Your task to perform on an android device: open app "Nova Launcher" (install if not already installed), go to login, and select forgot password Image 0: 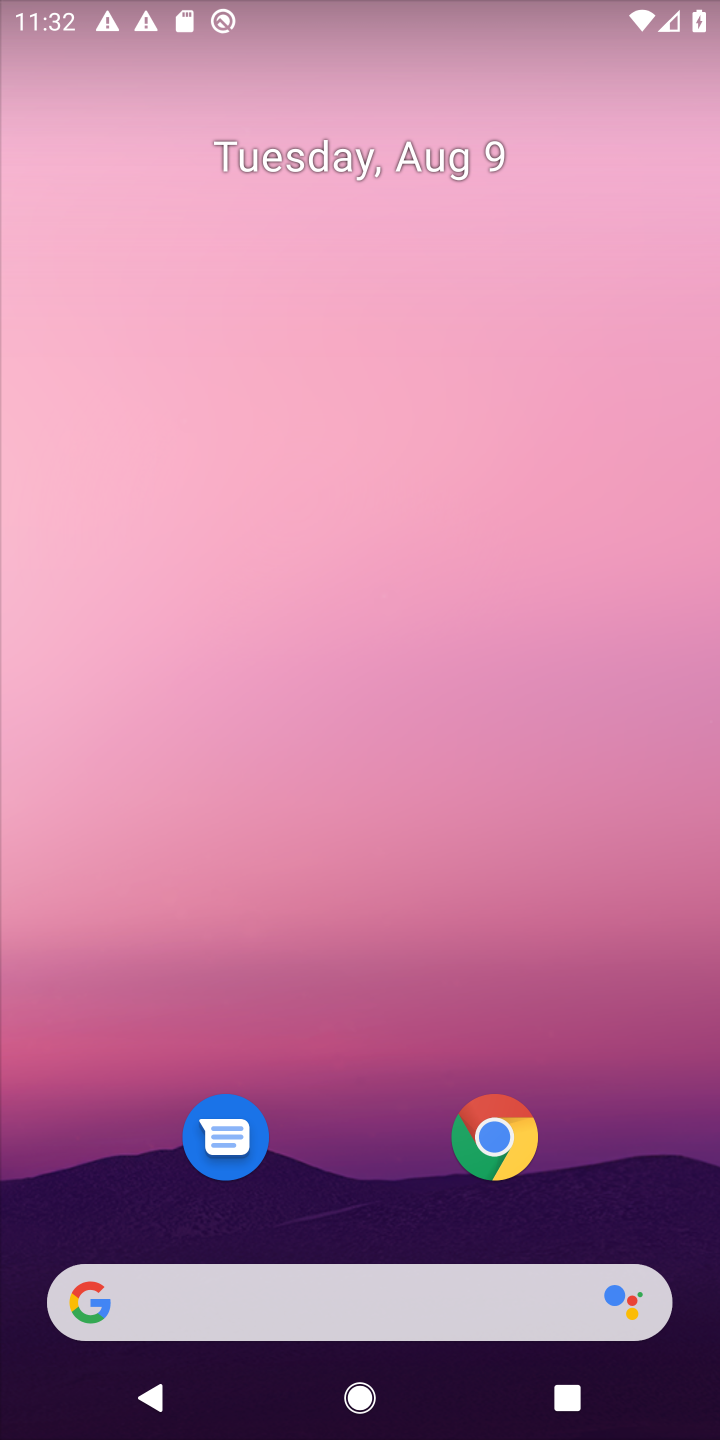
Step 0: press home button
Your task to perform on an android device: open app "Nova Launcher" (install if not already installed), go to login, and select forgot password Image 1: 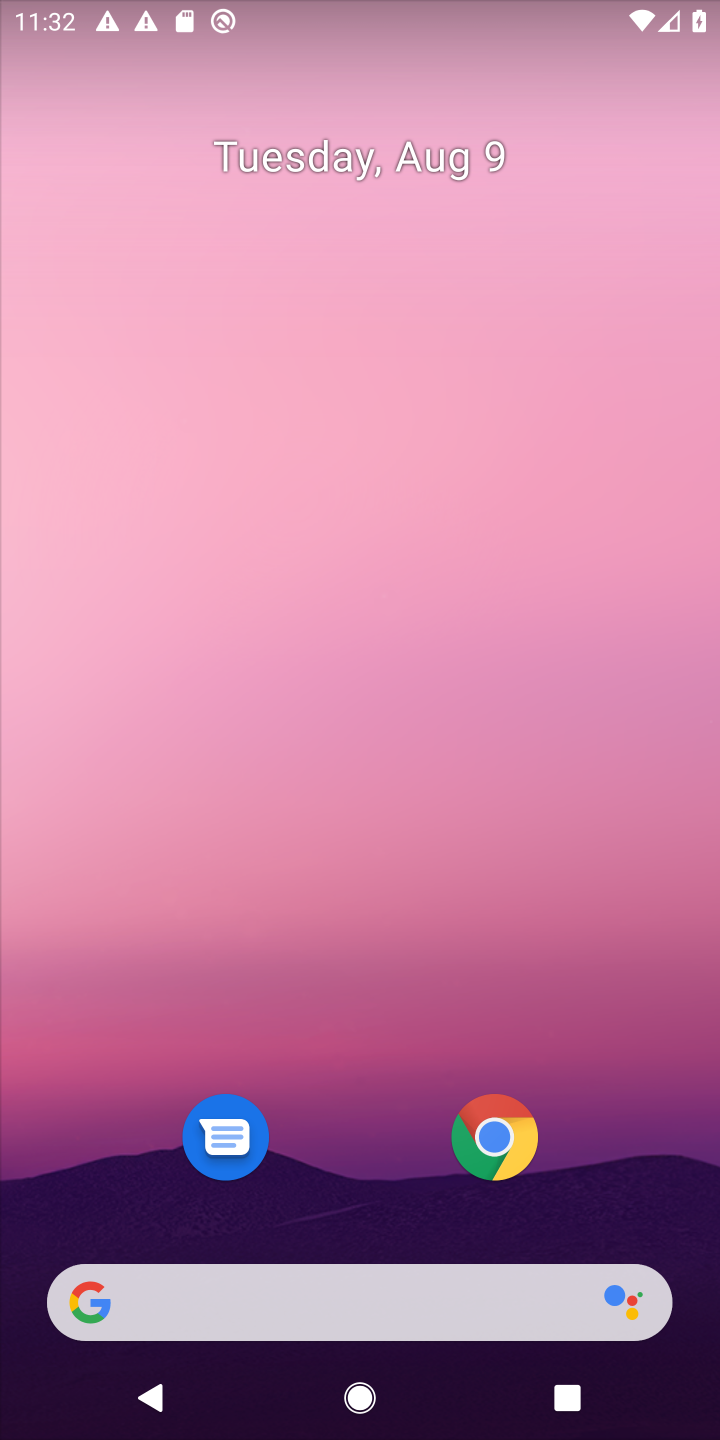
Step 1: drag from (385, 1215) to (423, 33)
Your task to perform on an android device: open app "Nova Launcher" (install if not already installed), go to login, and select forgot password Image 2: 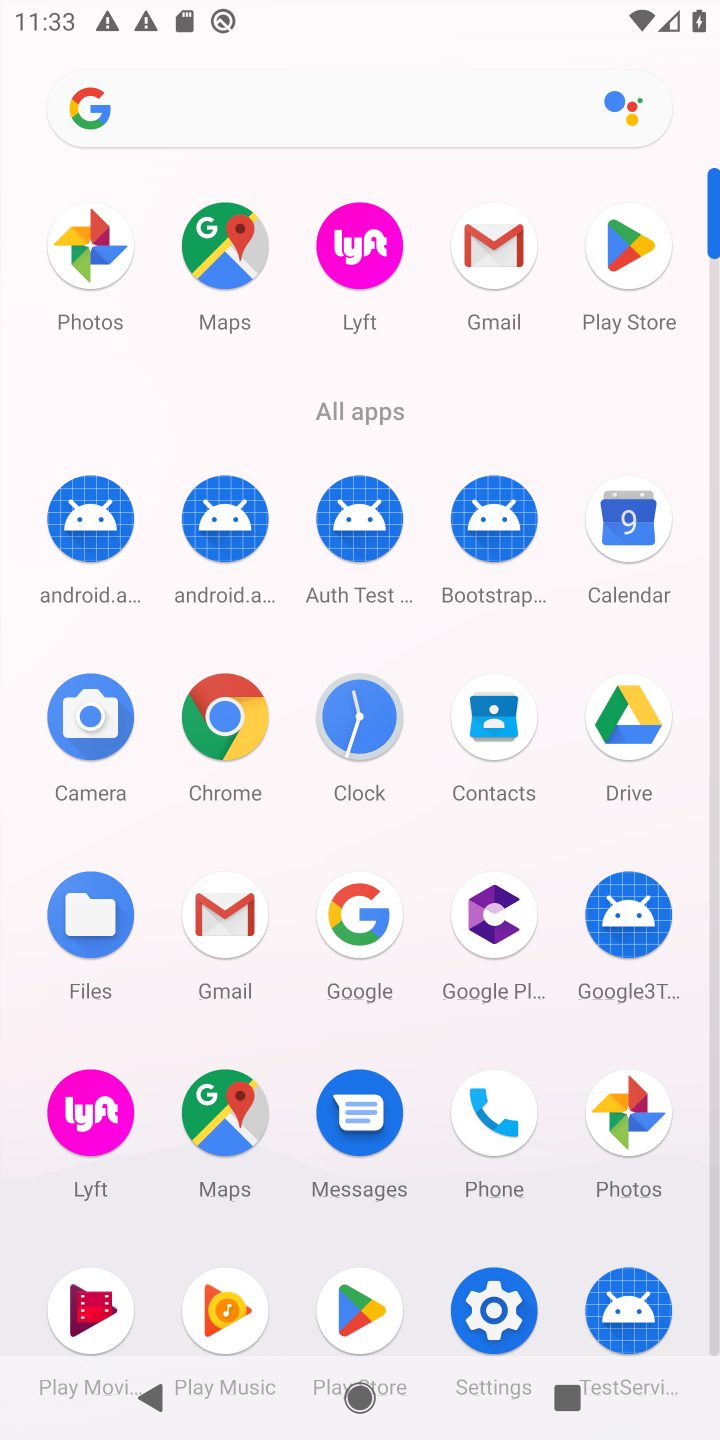
Step 2: click (628, 238)
Your task to perform on an android device: open app "Nova Launcher" (install if not already installed), go to login, and select forgot password Image 3: 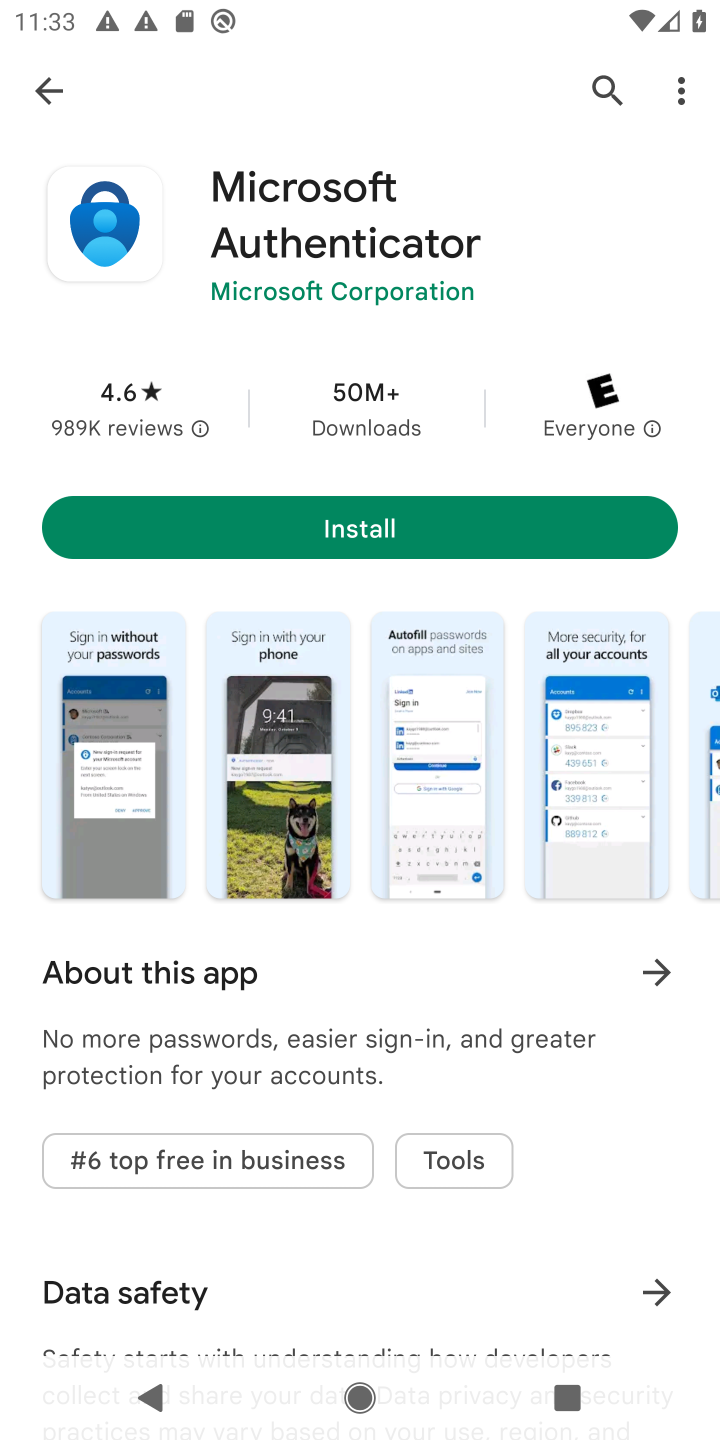
Step 3: click (603, 87)
Your task to perform on an android device: open app "Nova Launcher" (install if not already installed), go to login, and select forgot password Image 4: 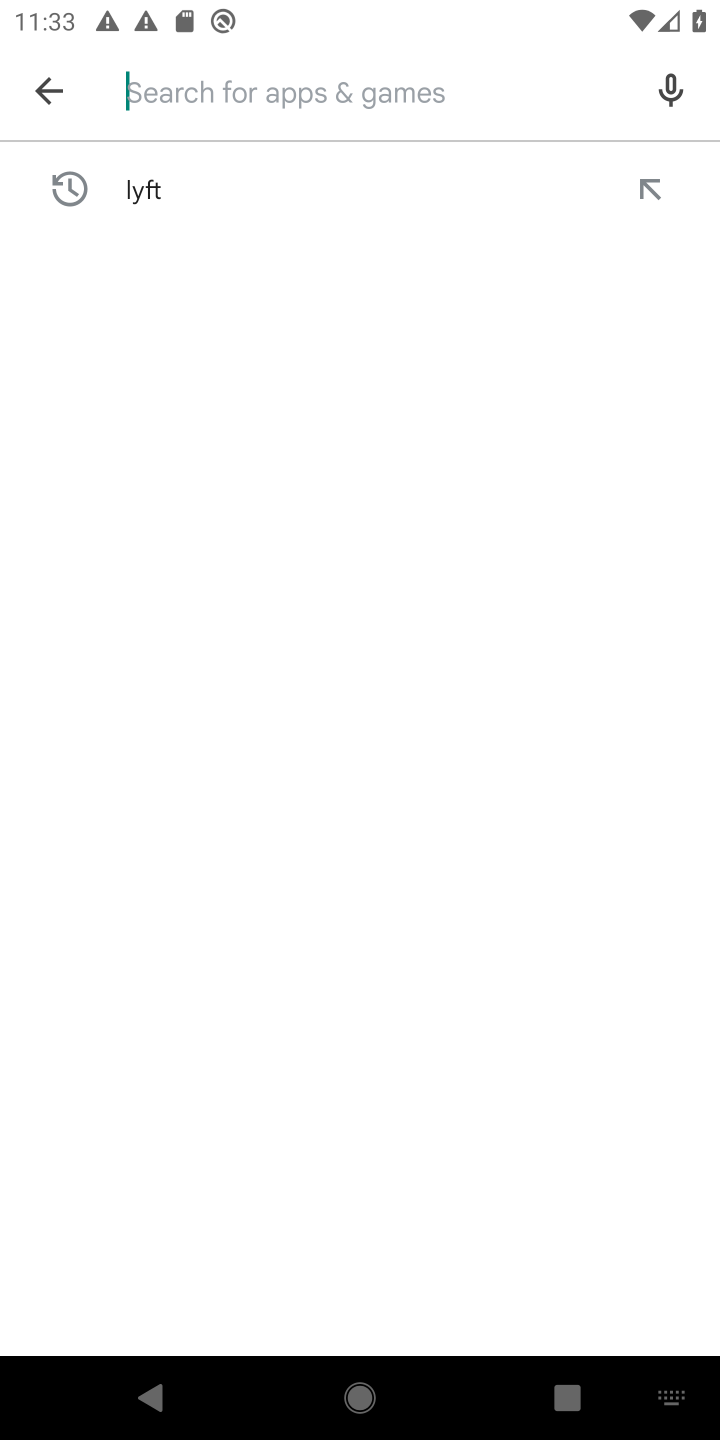
Step 4: type "Nova Launcher"
Your task to perform on an android device: open app "Nova Launcher" (install if not already installed), go to login, and select forgot password Image 5: 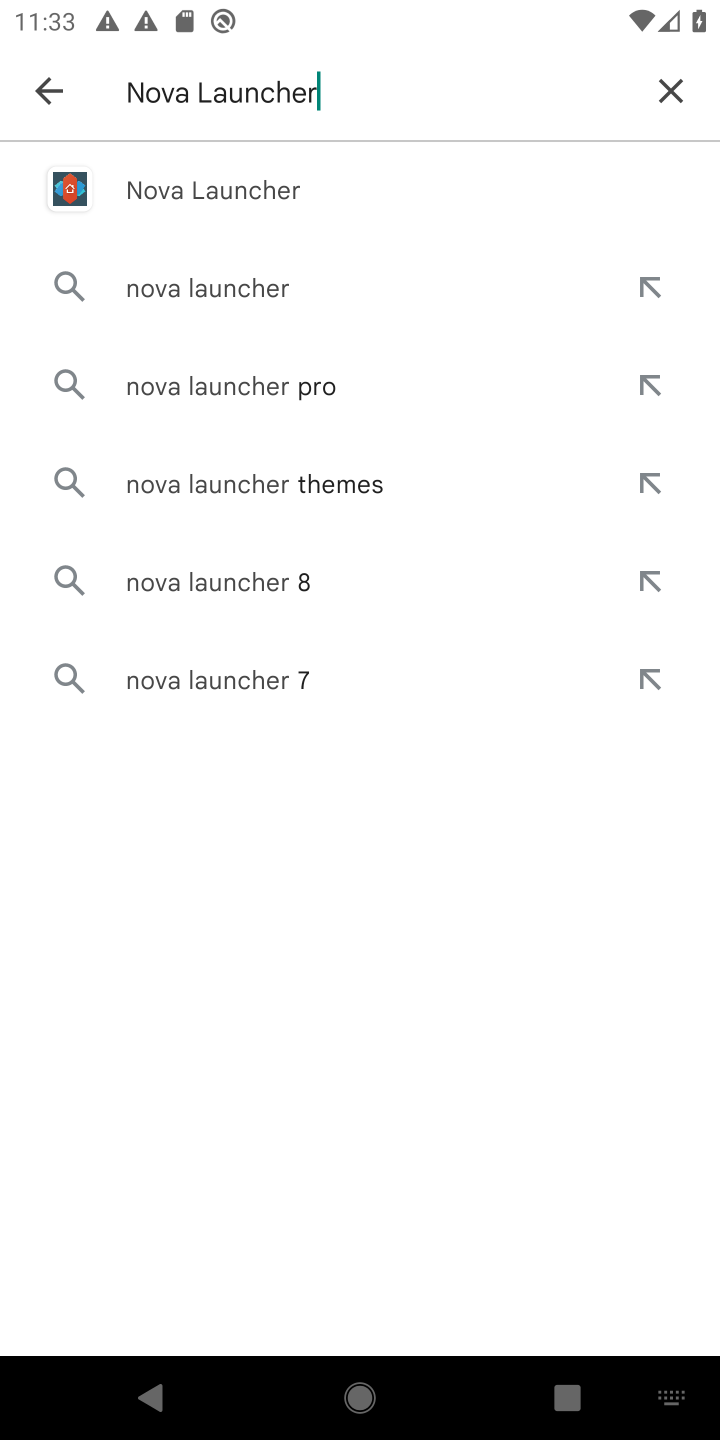
Step 5: click (274, 196)
Your task to perform on an android device: open app "Nova Launcher" (install if not already installed), go to login, and select forgot password Image 6: 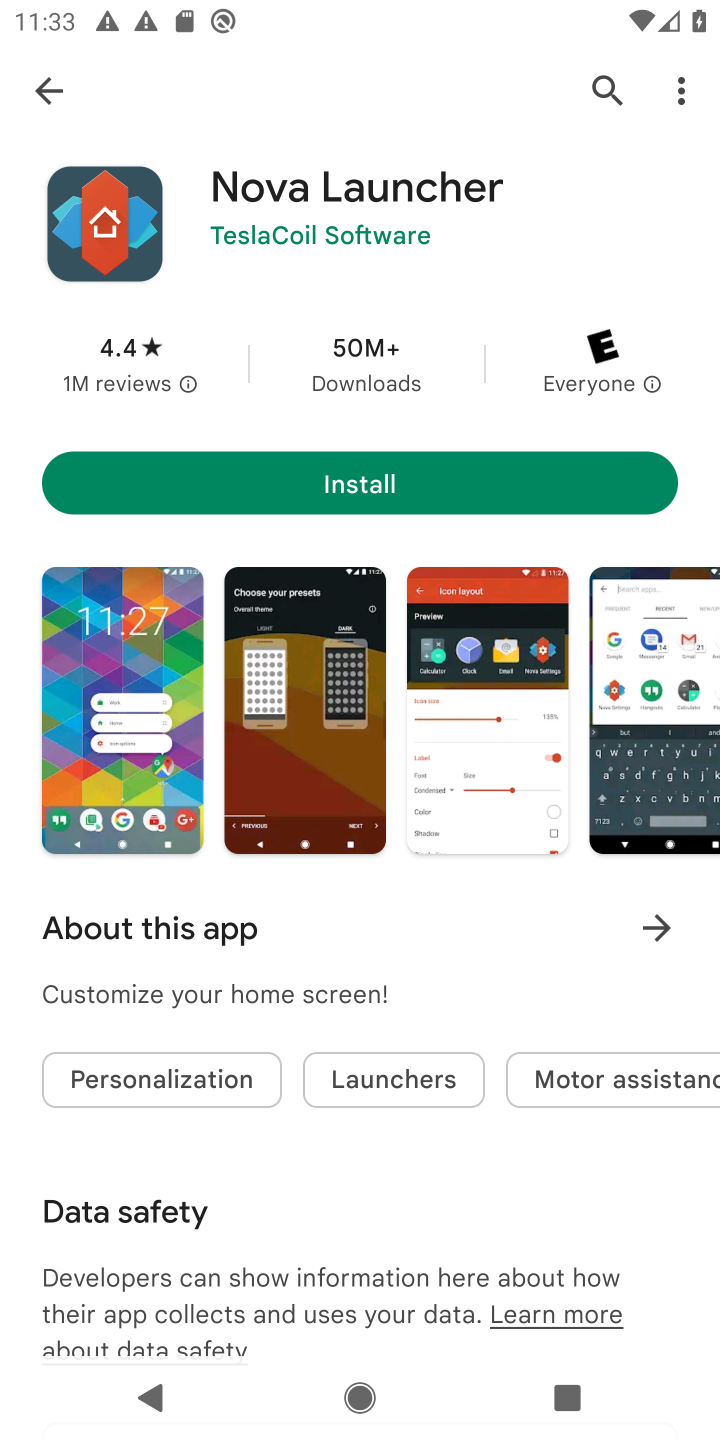
Step 6: click (372, 474)
Your task to perform on an android device: open app "Nova Launcher" (install if not already installed), go to login, and select forgot password Image 7: 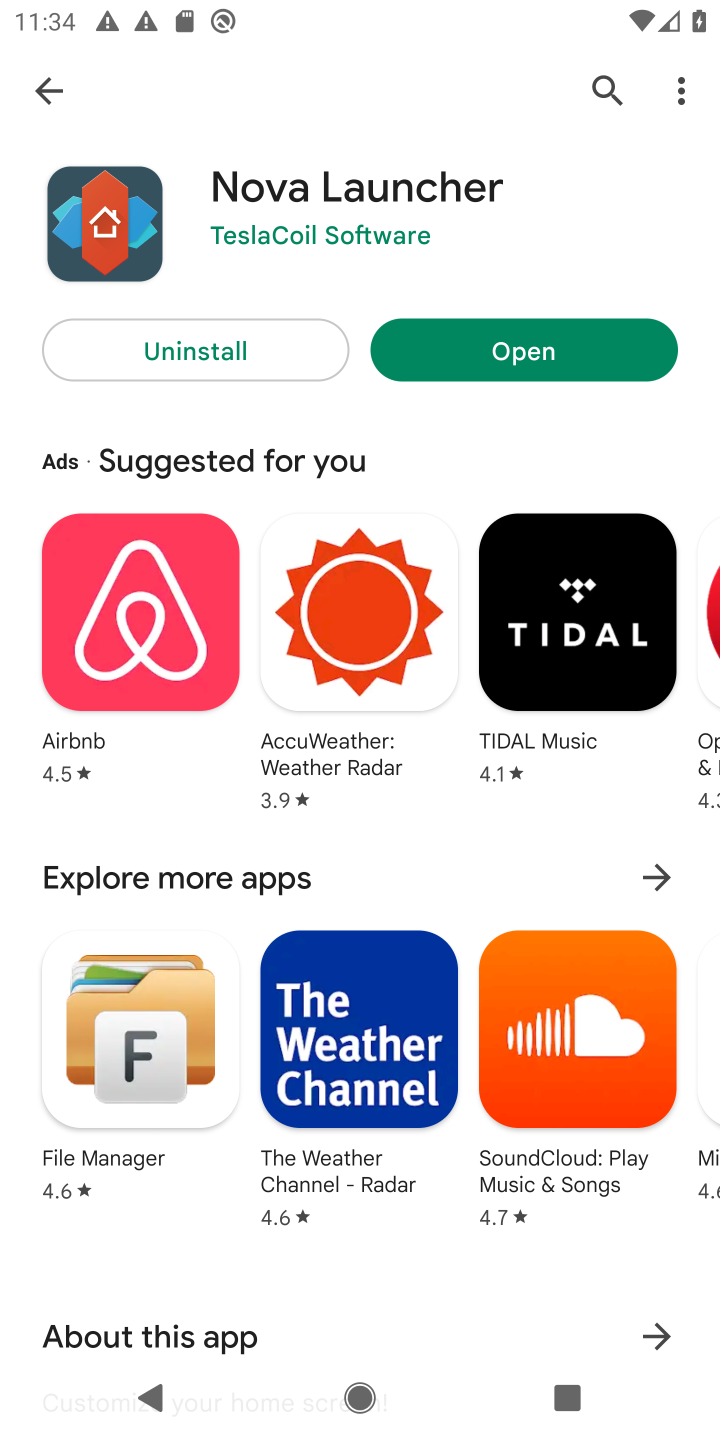
Step 7: click (494, 371)
Your task to perform on an android device: open app "Nova Launcher" (install if not already installed), go to login, and select forgot password Image 8: 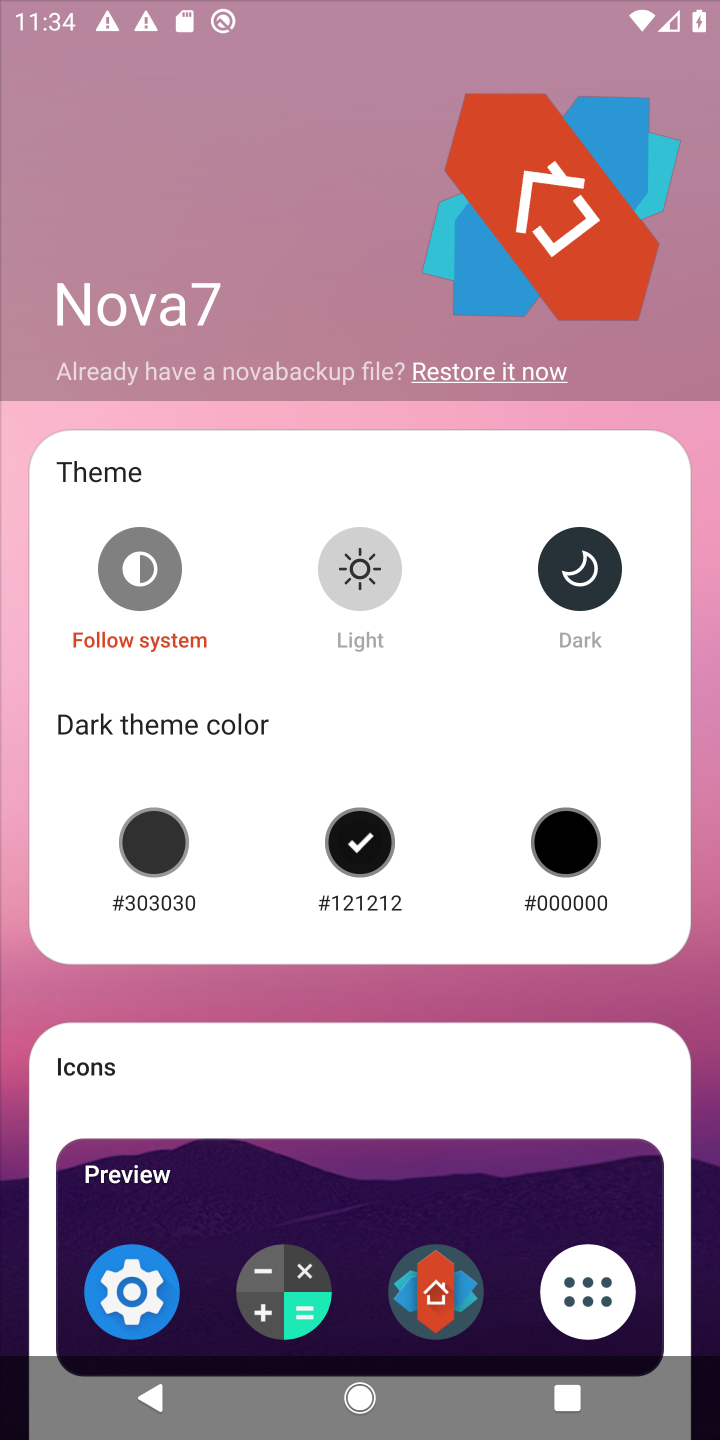
Step 8: task complete